Your task to perform on an android device: Open ESPN.com Image 0: 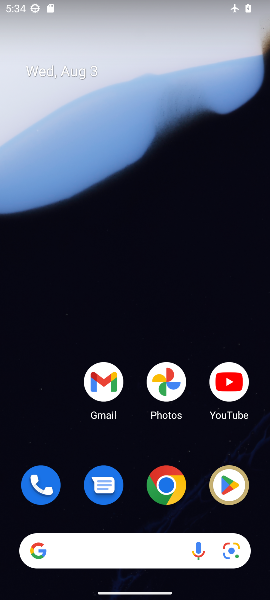
Step 0: click (236, 348)
Your task to perform on an android device: Open ESPN.com Image 1: 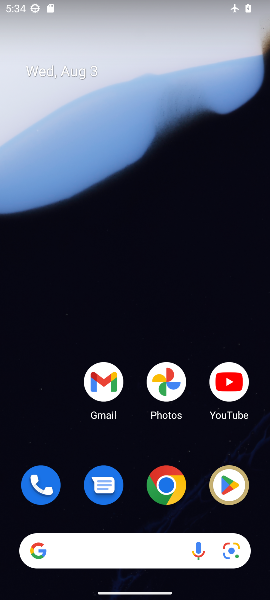
Step 1: drag from (127, 426) to (146, 4)
Your task to perform on an android device: Open ESPN.com Image 2: 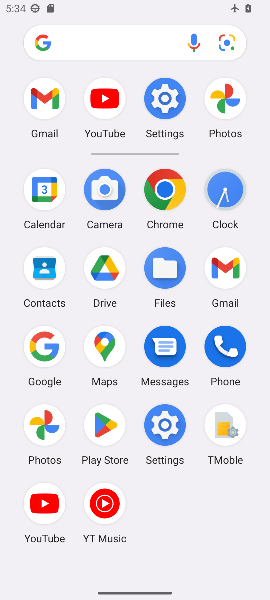
Step 2: click (167, 181)
Your task to perform on an android device: Open ESPN.com Image 3: 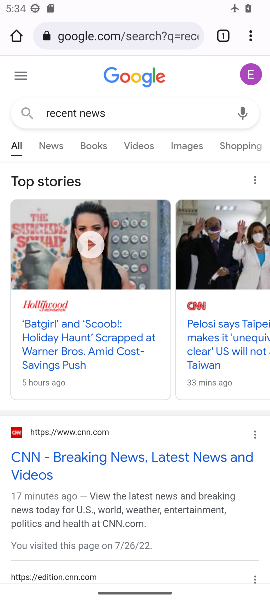
Step 3: click (159, 26)
Your task to perform on an android device: Open ESPN.com Image 4: 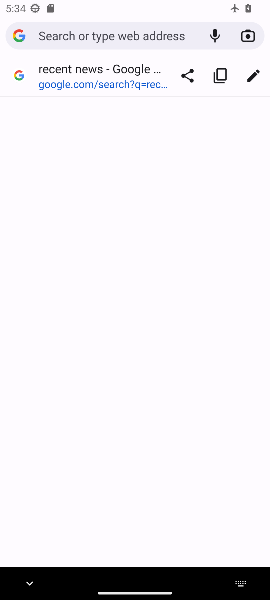
Step 4: type "espn.com"
Your task to perform on an android device: Open ESPN.com Image 5: 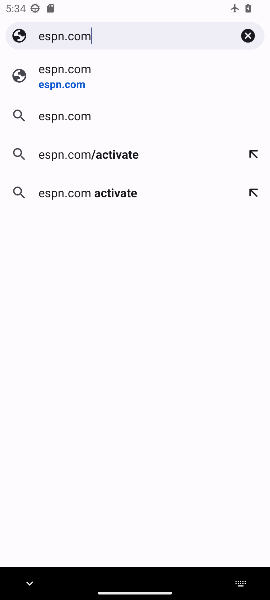
Step 5: click (89, 83)
Your task to perform on an android device: Open ESPN.com Image 6: 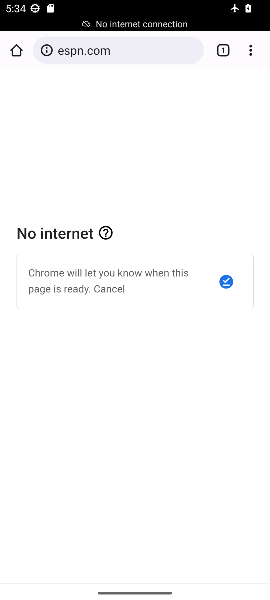
Step 6: task complete